Your task to perform on an android device: Open CNN.com Image 0: 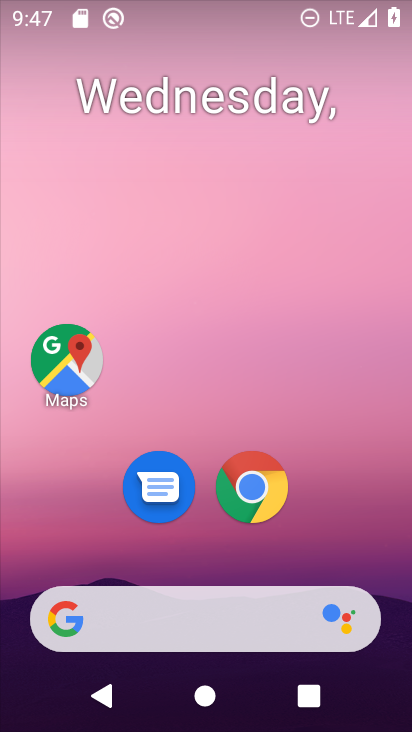
Step 0: click (258, 486)
Your task to perform on an android device: Open CNN.com Image 1: 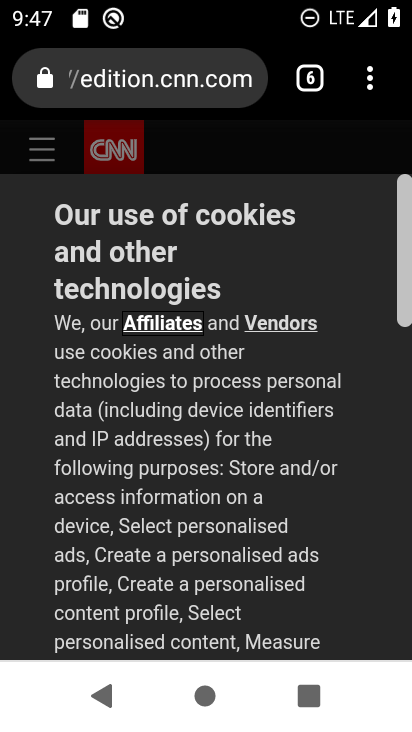
Step 1: click (368, 76)
Your task to perform on an android device: Open CNN.com Image 2: 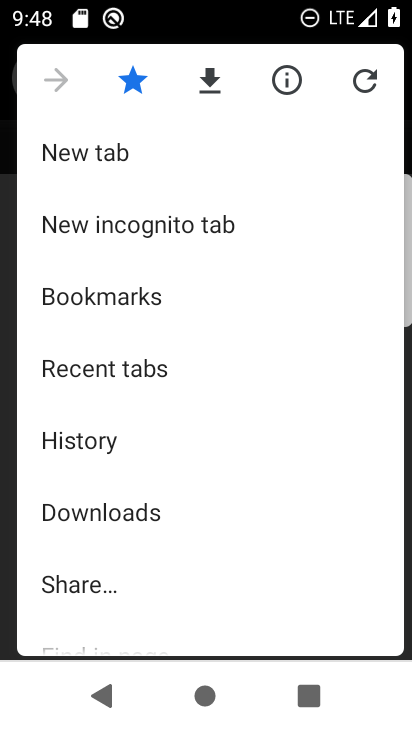
Step 2: click (112, 150)
Your task to perform on an android device: Open CNN.com Image 3: 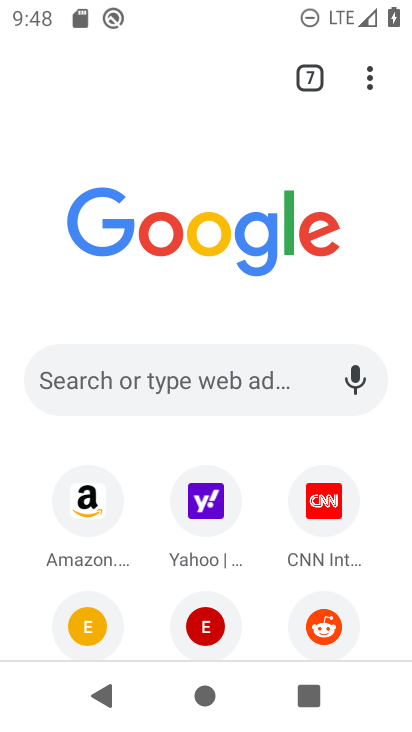
Step 3: click (180, 379)
Your task to perform on an android device: Open CNN.com Image 4: 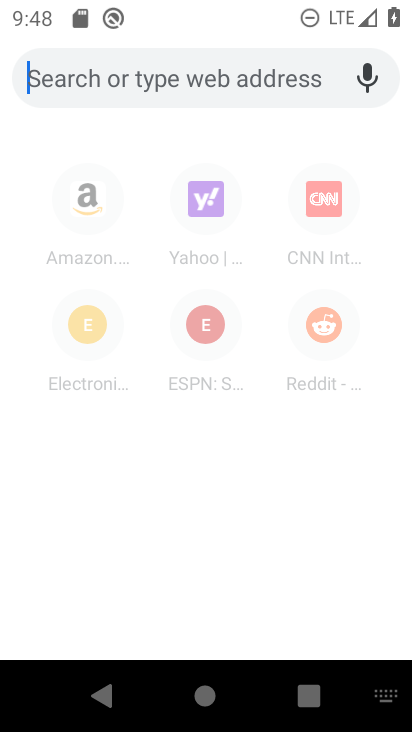
Step 4: type "cnn.com"
Your task to perform on an android device: Open CNN.com Image 5: 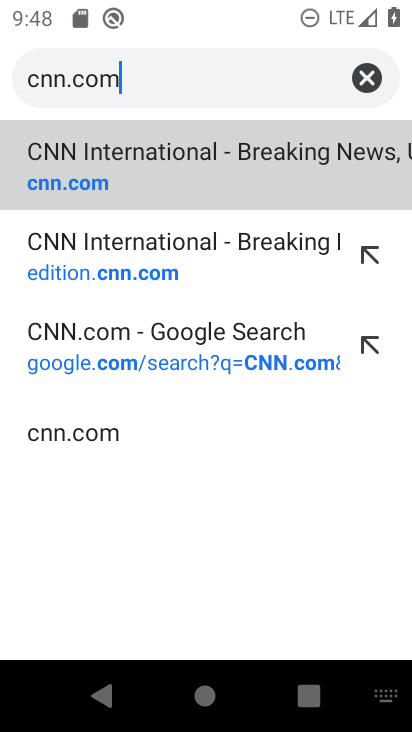
Step 5: click (182, 143)
Your task to perform on an android device: Open CNN.com Image 6: 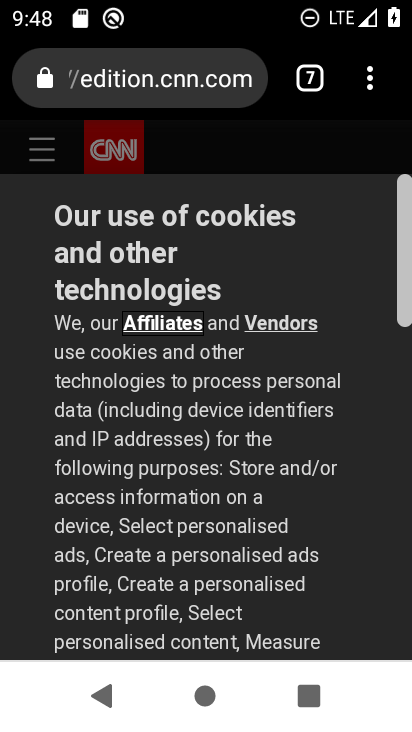
Step 6: task complete